Your task to perform on an android device: open a bookmark in the chrome app Image 0: 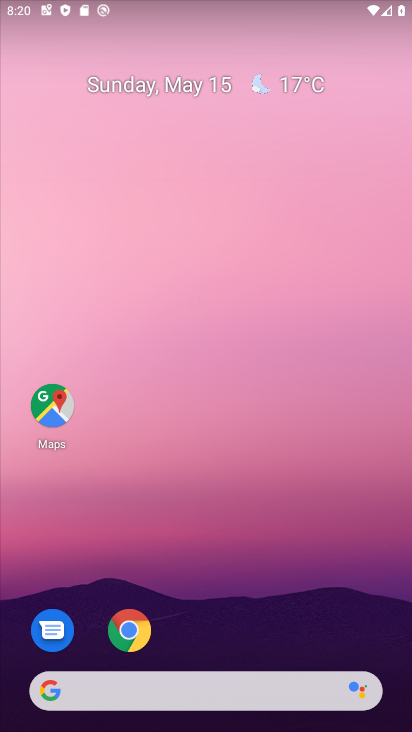
Step 0: drag from (301, 578) to (296, 10)
Your task to perform on an android device: open a bookmark in the chrome app Image 1: 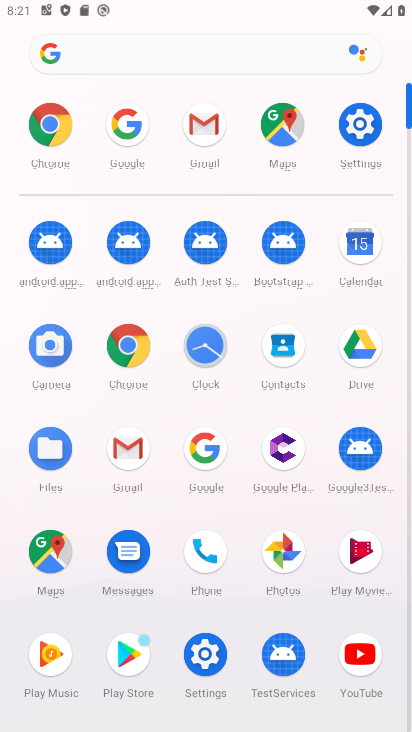
Step 1: click (31, 130)
Your task to perform on an android device: open a bookmark in the chrome app Image 2: 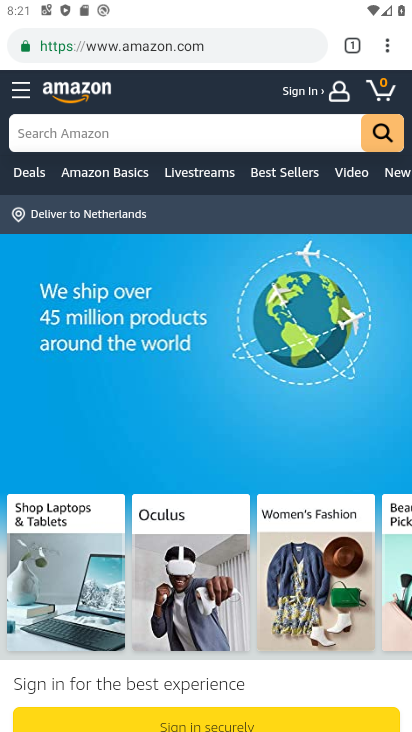
Step 2: task complete